Your task to perform on an android device: Search for Italian restaurants on Maps Image 0: 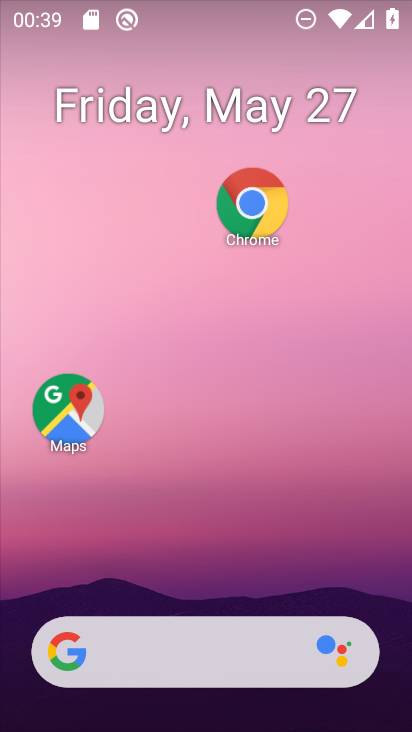
Step 0: drag from (175, 552) to (162, 197)
Your task to perform on an android device: Search for Italian restaurants on Maps Image 1: 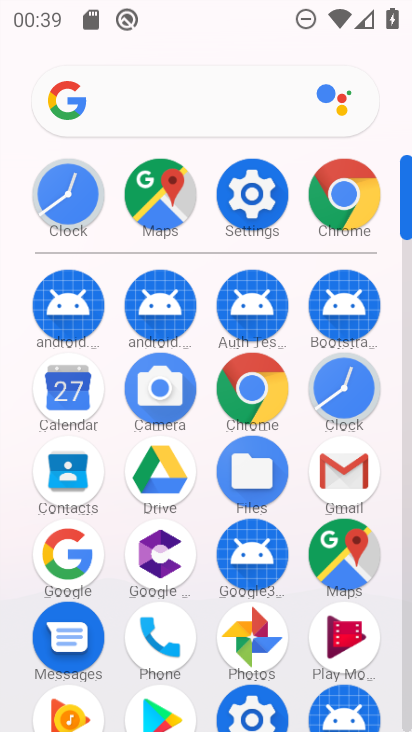
Step 1: click (330, 543)
Your task to perform on an android device: Search for Italian restaurants on Maps Image 2: 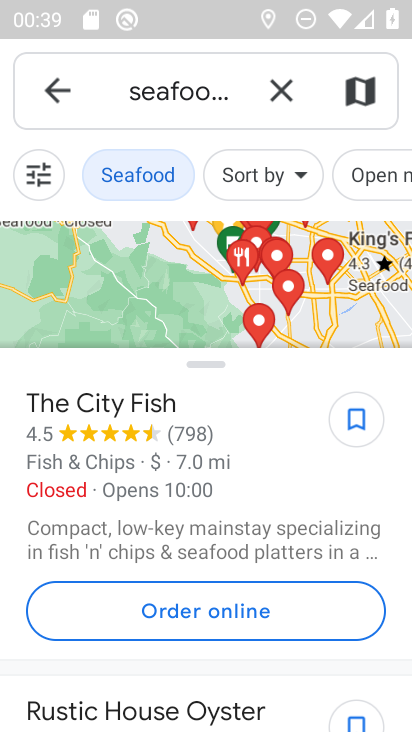
Step 2: click (287, 106)
Your task to perform on an android device: Search for Italian restaurants on Maps Image 3: 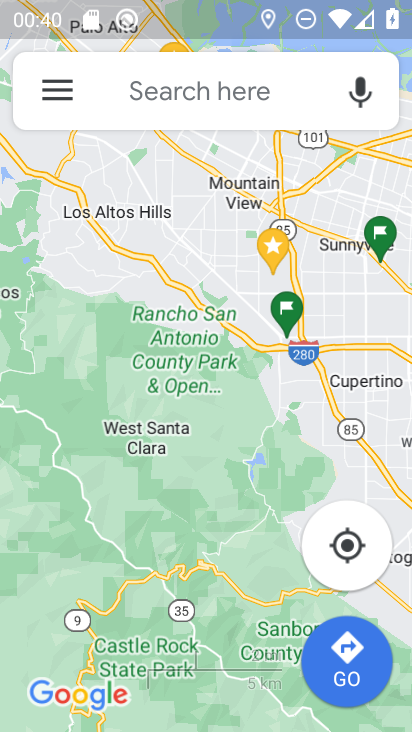
Step 3: click (171, 98)
Your task to perform on an android device: Search for Italian restaurants on Maps Image 4: 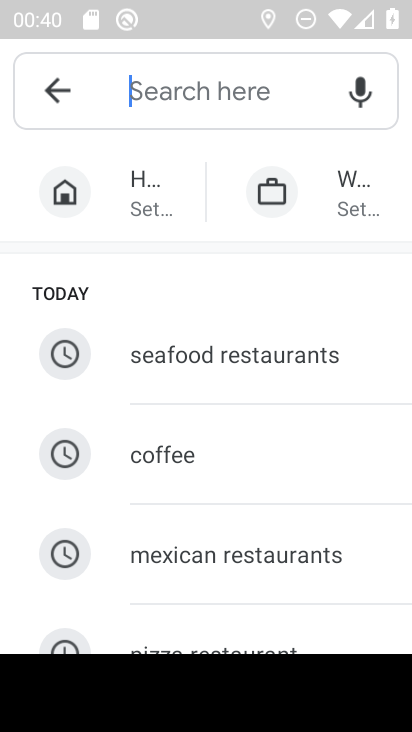
Step 4: drag from (211, 584) to (115, 158)
Your task to perform on an android device: Search for Italian restaurants on Maps Image 5: 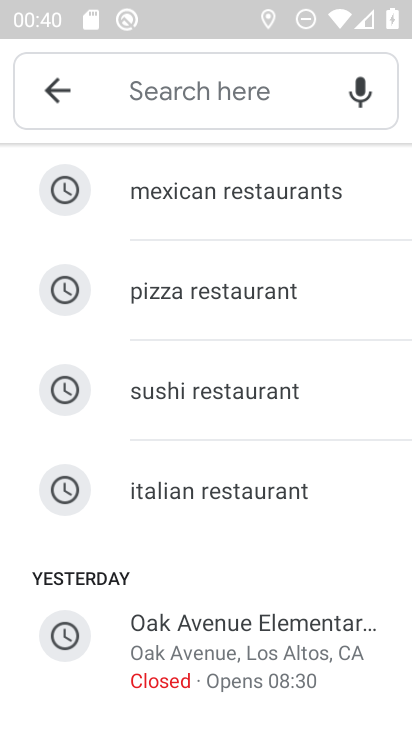
Step 5: click (316, 470)
Your task to perform on an android device: Search for Italian restaurants on Maps Image 6: 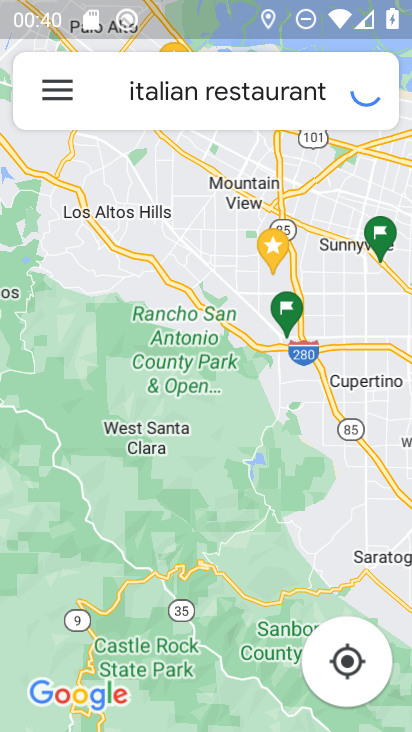
Step 6: task complete